Your task to perform on an android device: Go to Amazon Image 0: 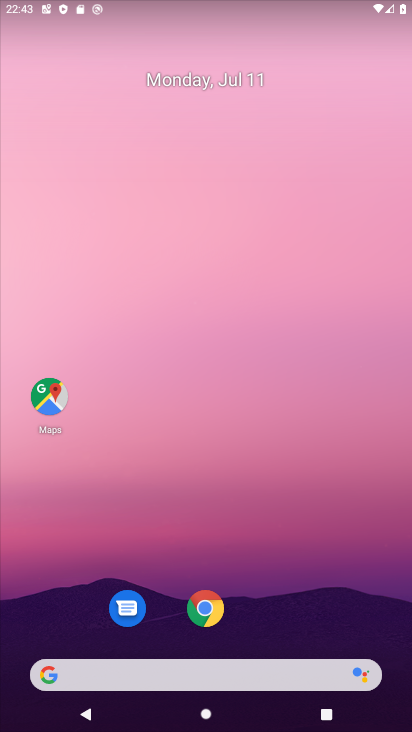
Step 0: click (83, 675)
Your task to perform on an android device: Go to Amazon Image 1: 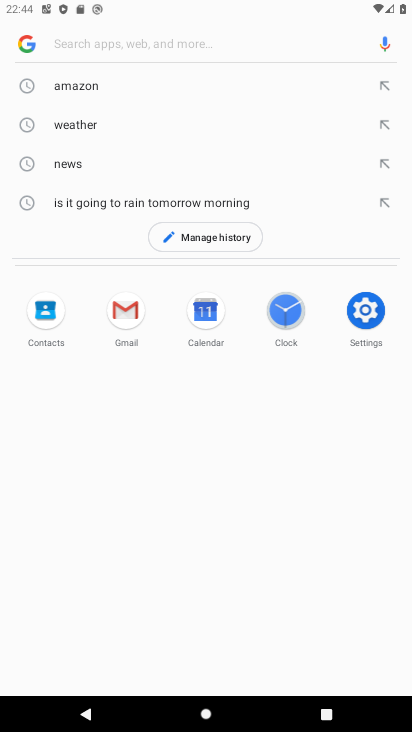
Step 1: click (73, 91)
Your task to perform on an android device: Go to Amazon Image 2: 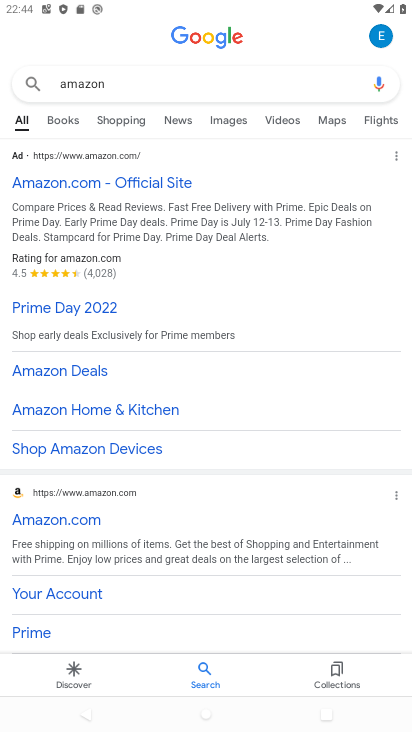
Step 2: task complete